Your task to perform on an android device: Open the stopwatch Image 0: 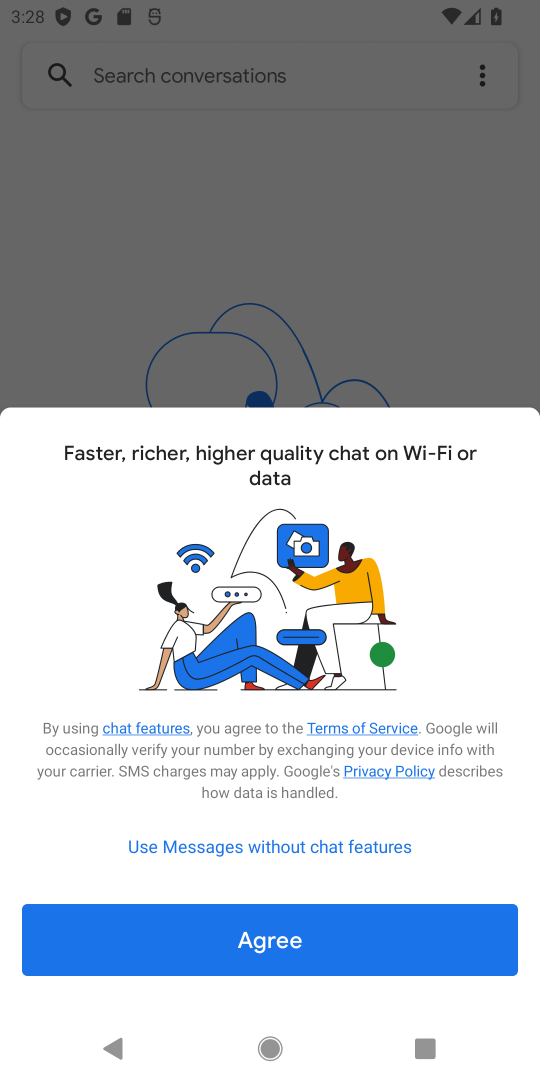
Step 0: press home button
Your task to perform on an android device: Open the stopwatch Image 1: 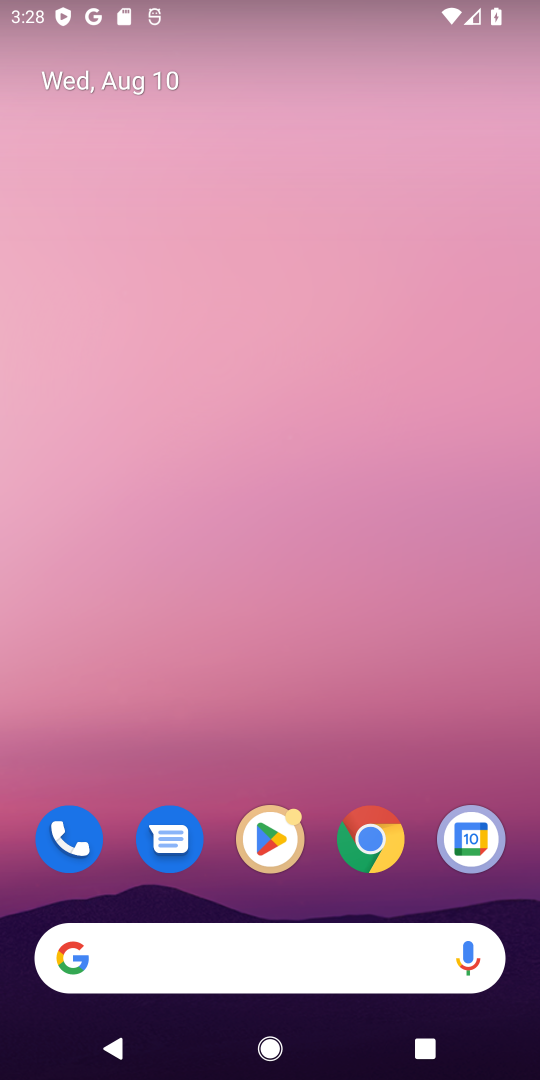
Step 1: drag from (207, 660) to (306, 421)
Your task to perform on an android device: Open the stopwatch Image 2: 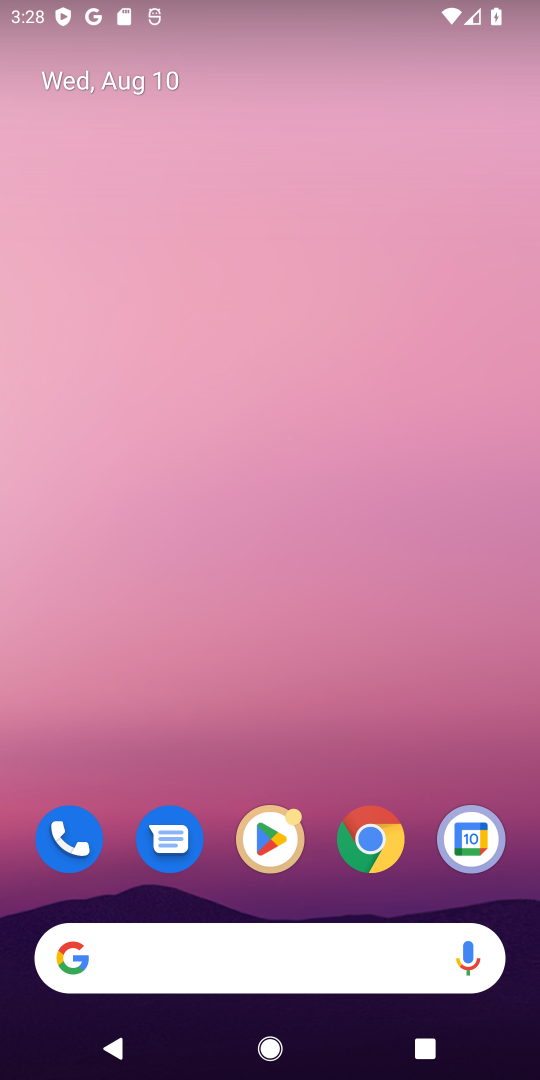
Step 2: click (59, 1027)
Your task to perform on an android device: Open the stopwatch Image 3: 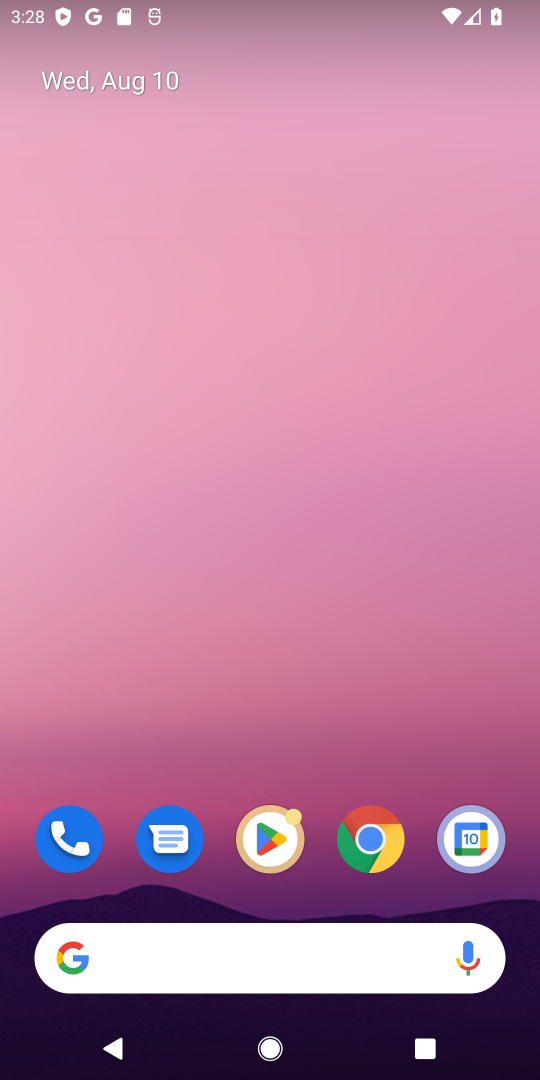
Step 3: drag from (59, 1027) to (222, 473)
Your task to perform on an android device: Open the stopwatch Image 4: 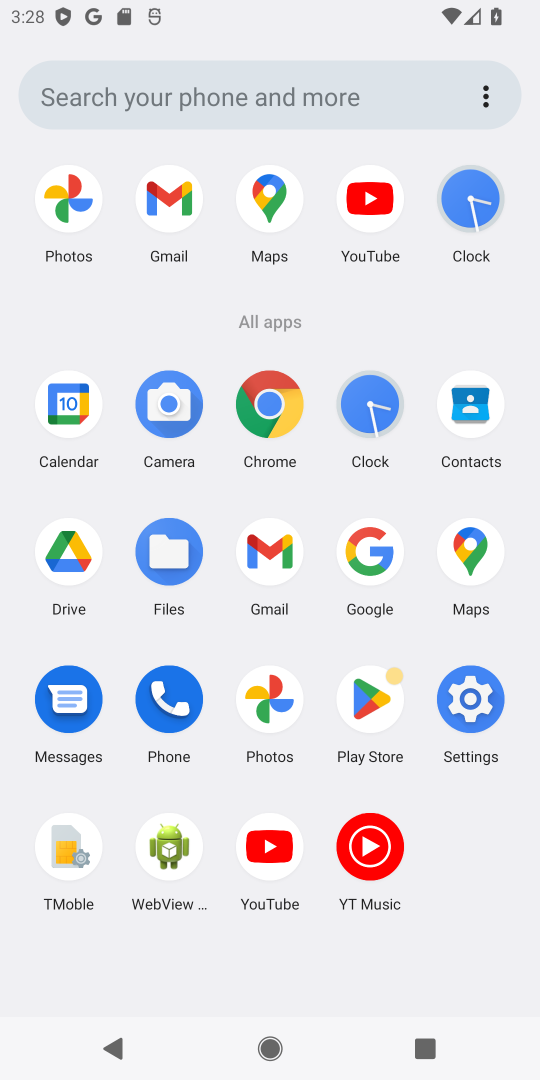
Step 4: click (376, 420)
Your task to perform on an android device: Open the stopwatch Image 5: 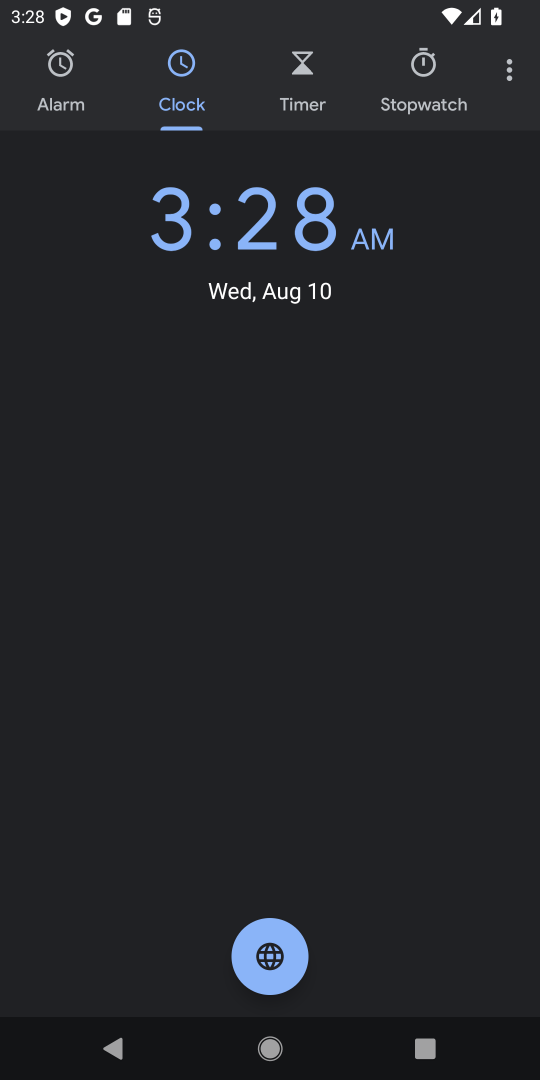
Step 5: click (425, 70)
Your task to perform on an android device: Open the stopwatch Image 6: 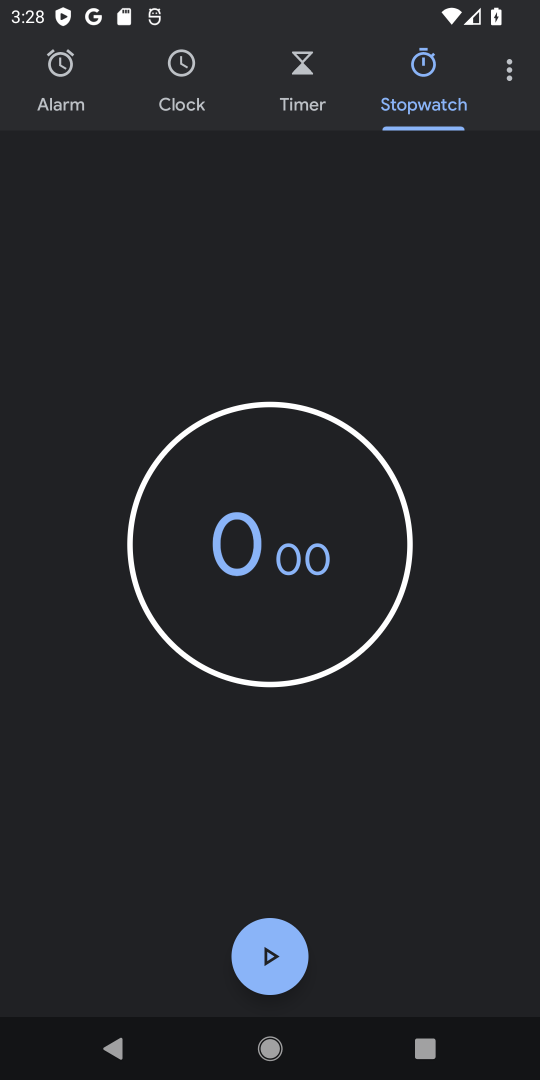
Step 6: click (254, 941)
Your task to perform on an android device: Open the stopwatch Image 7: 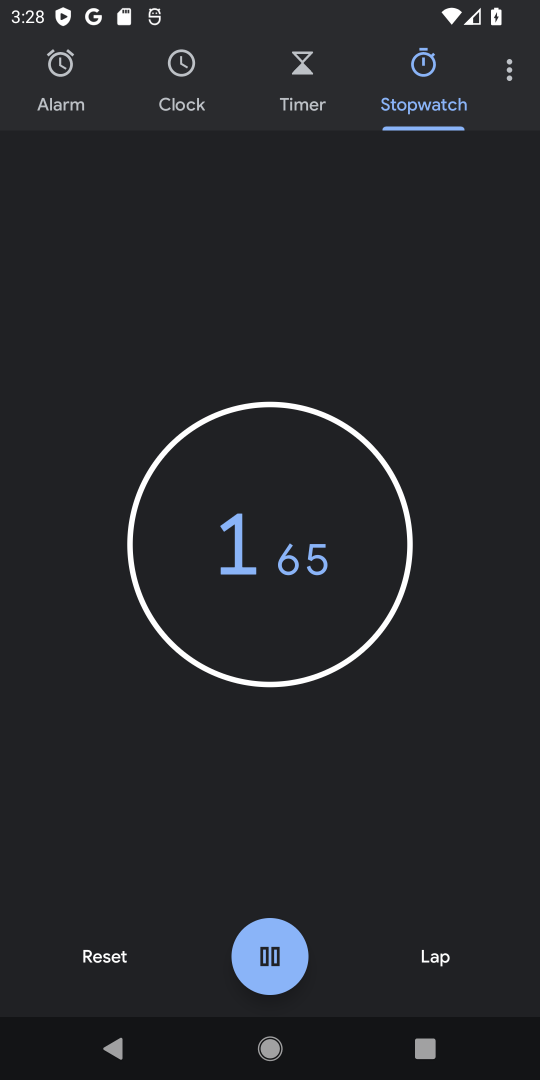
Step 7: click (254, 941)
Your task to perform on an android device: Open the stopwatch Image 8: 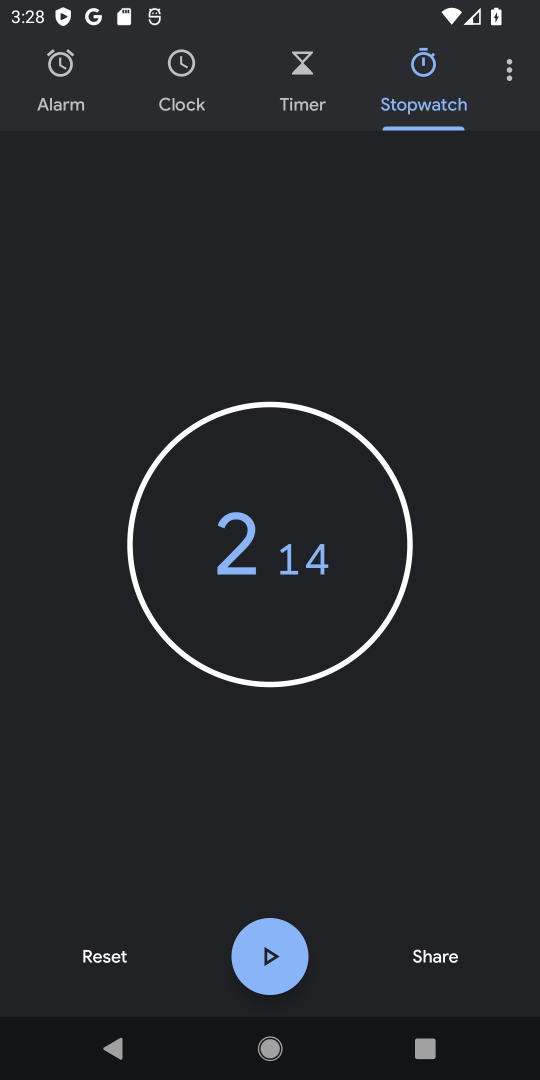
Step 8: task complete